Your task to perform on an android device: Open Chrome and go to settings Image 0: 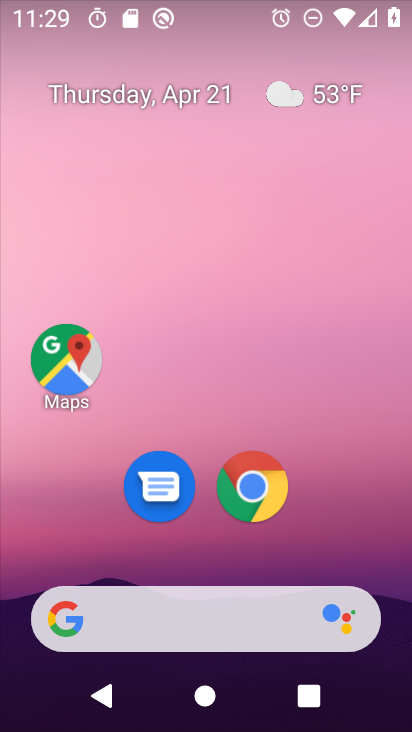
Step 0: click (251, 481)
Your task to perform on an android device: Open Chrome and go to settings Image 1: 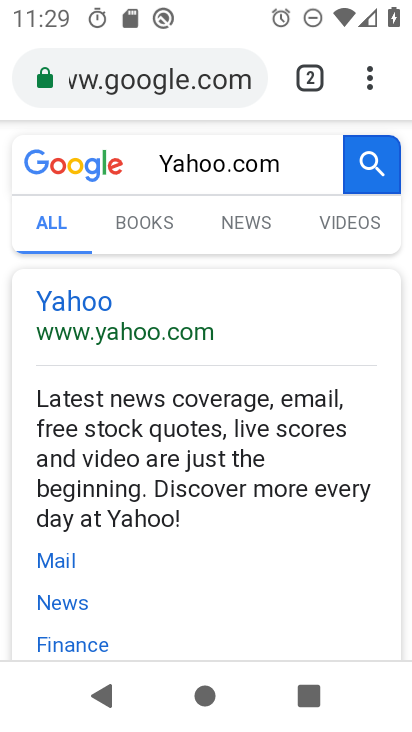
Step 1: click (368, 72)
Your task to perform on an android device: Open Chrome and go to settings Image 2: 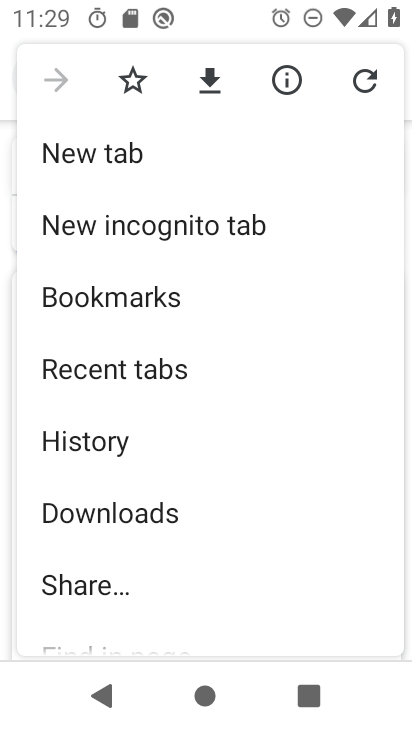
Step 2: drag from (285, 597) to (270, 242)
Your task to perform on an android device: Open Chrome and go to settings Image 3: 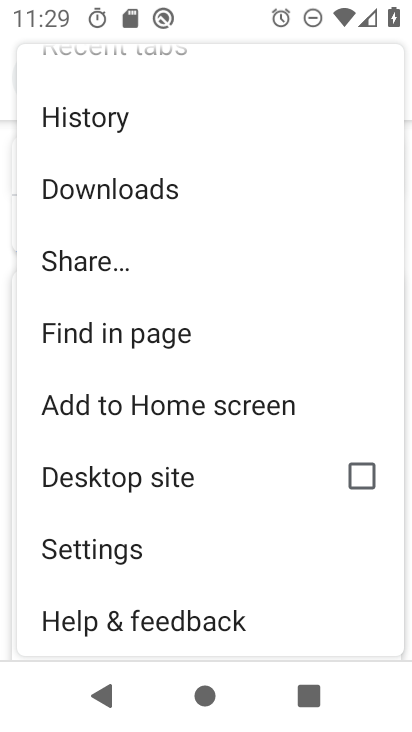
Step 3: click (93, 549)
Your task to perform on an android device: Open Chrome and go to settings Image 4: 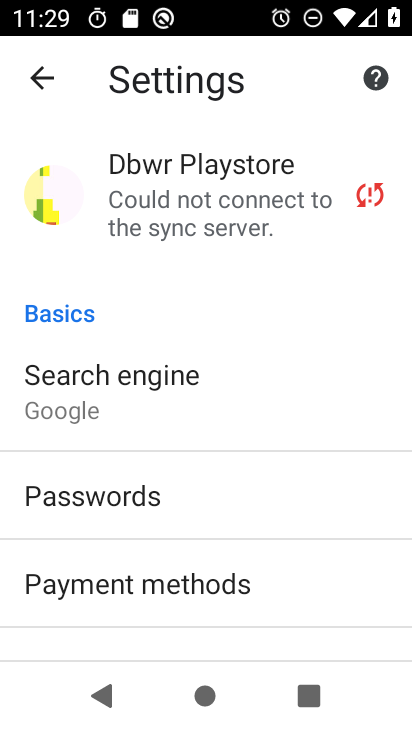
Step 4: click (314, 274)
Your task to perform on an android device: Open Chrome and go to settings Image 5: 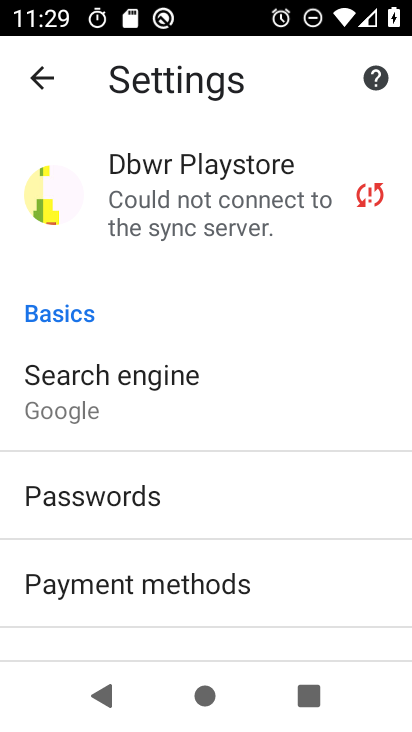
Step 5: task complete